Your task to perform on an android device: change the clock display to analog Image 0: 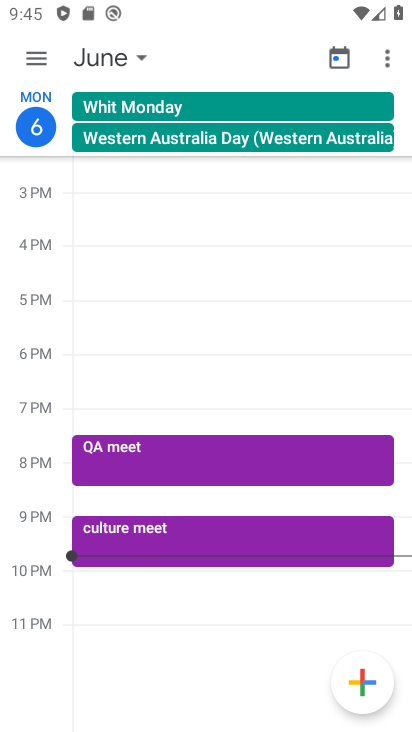
Step 0: press back button
Your task to perform on an android device: change the clock display to analog Image 1: 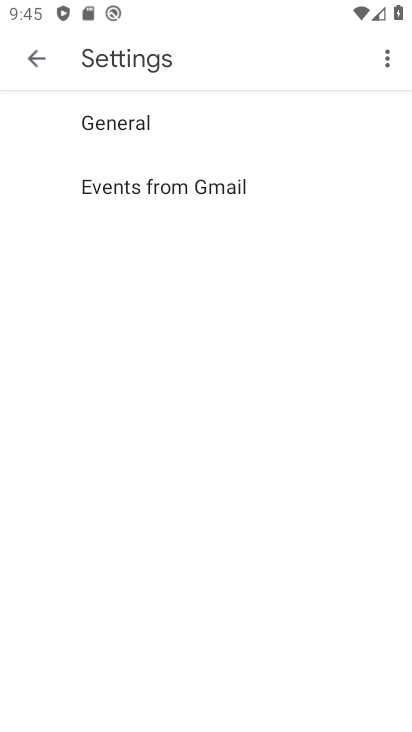
Step 1: press back button
Your task to perform on an android device: change the clock display to analog Image 2: 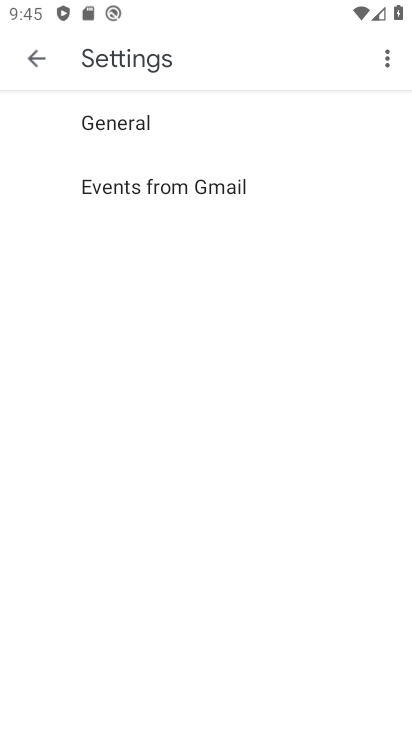
Step 2: press home button
Your task to perform on an android device: change the clock display to analog Image 3: 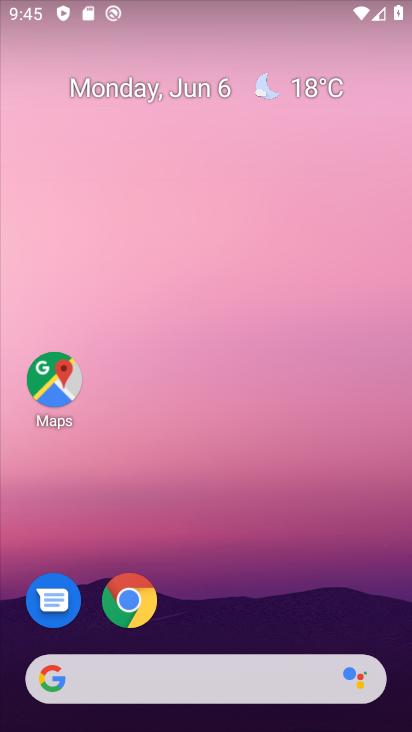
Step 3: drag from (268, 576) to (255, 27)
Your task to perform on an android device: change the clock display to analog Image 4: 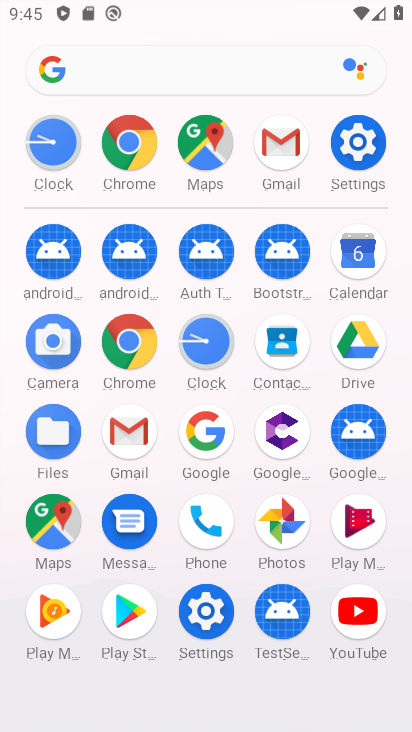
Step 4: click (204, 339)
Your task to perform on an android device: change the clock display to analog Image 5: 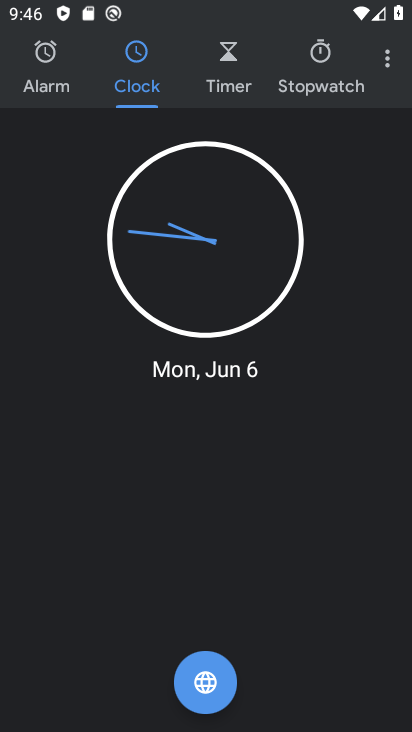
Step 5: drag from (388, 52) to (356, 111)
Your task to perform on an android device: change the clock display to analog Image 6: 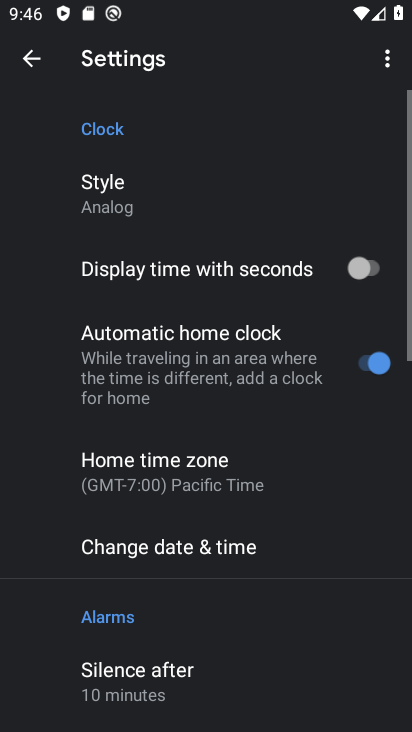
Step 6: click (196, 194)
Your task to perform on an android device: change the clock display to analog Image 7: 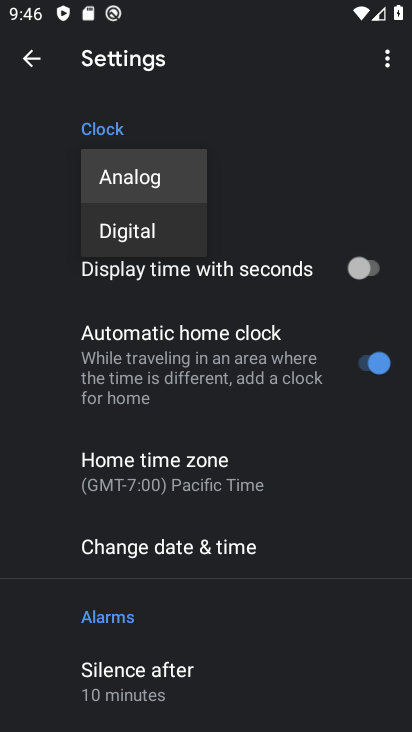
Step 7: click (164, 218)
Your task to perform on an android device: change the clock display to analog Image 8: 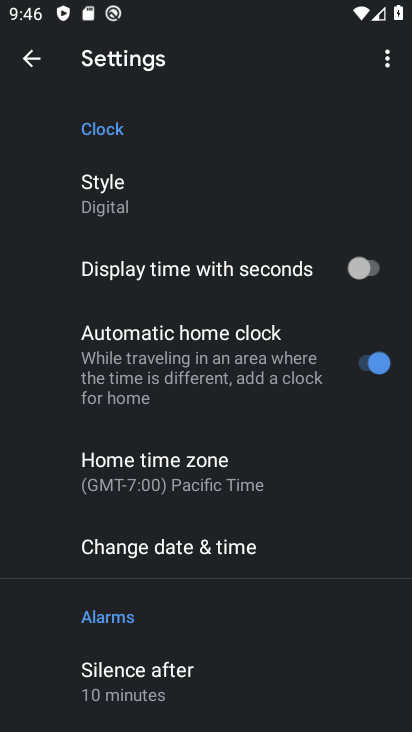
Step 8: task complete